Your task to perform on an android device: open a bookmark in the chrome app Image 0: 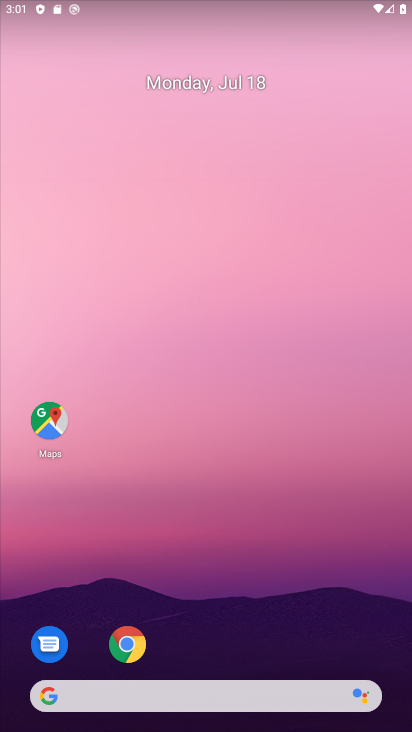
Step 0: press home button
Your task to perform on an android device: open a bookmark in the chrome app Image 1: 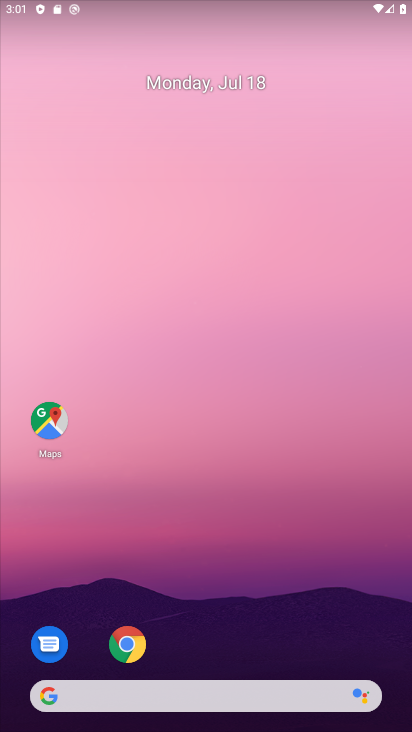
Step 1: drag from (239, 554) to (278, 217)
Your task to perform on an android device: open a bookmark in the chrome app Image 2: 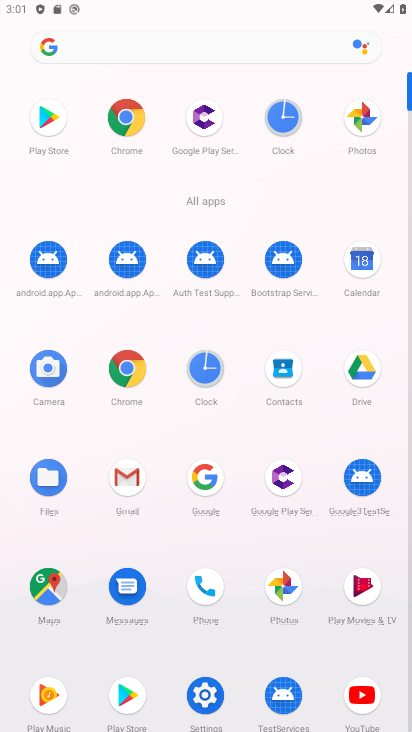
Step 2: click (124, 124)
Your task to perform on an android device: open a bookmark in the chrome app Image 3: 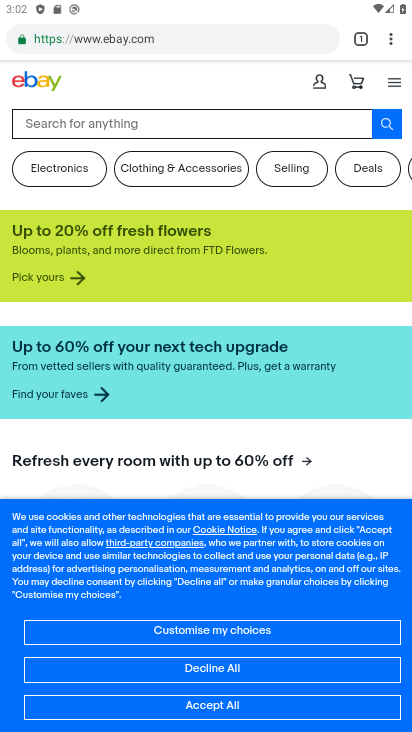
Step 3: drag from (394, 37) to (263, 144)
Your task to perform on an android device: open a bookmark in the chrome app Image 4: 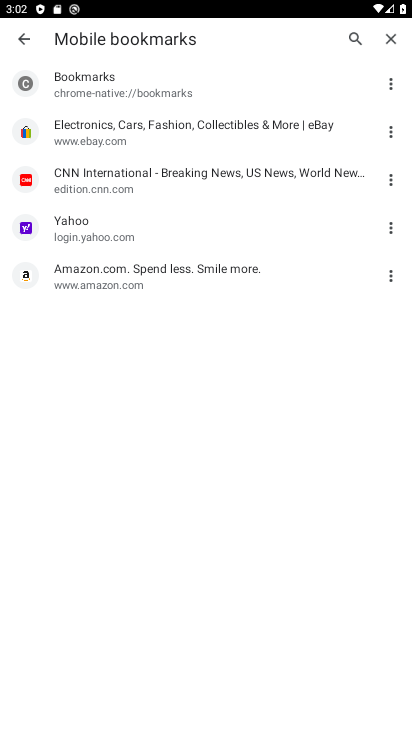
Step 4: click (149, 128)
Your task to perform on an android device: open a bookmark in the chrome app Image 5: 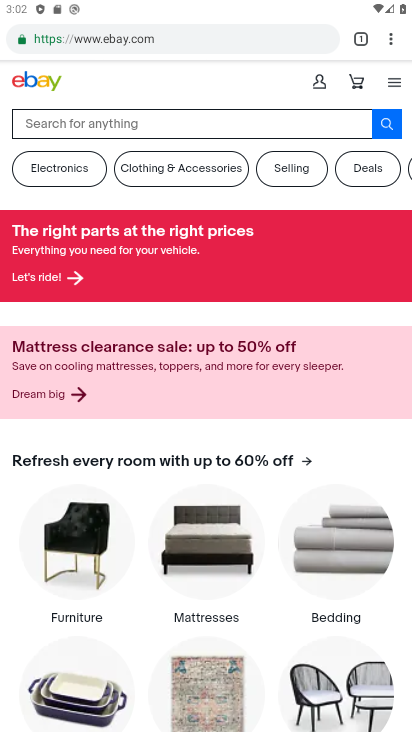
Step 5: task complete